Your task to perform on an android device: What is the news today? Image 0: 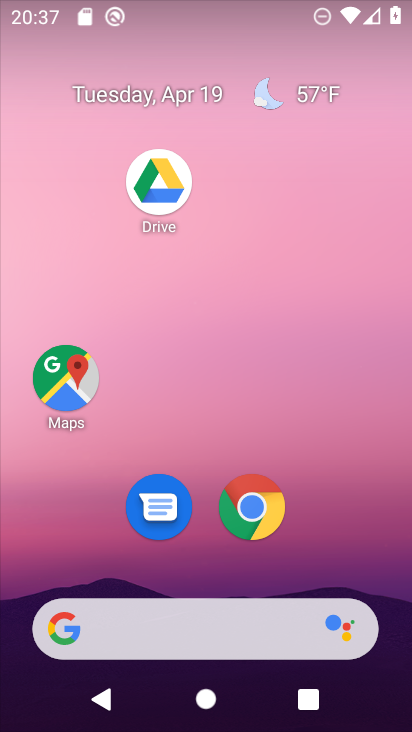
Step 0: click (63, 622)
Your task to perform on an android device: What is the news today? Image 1: 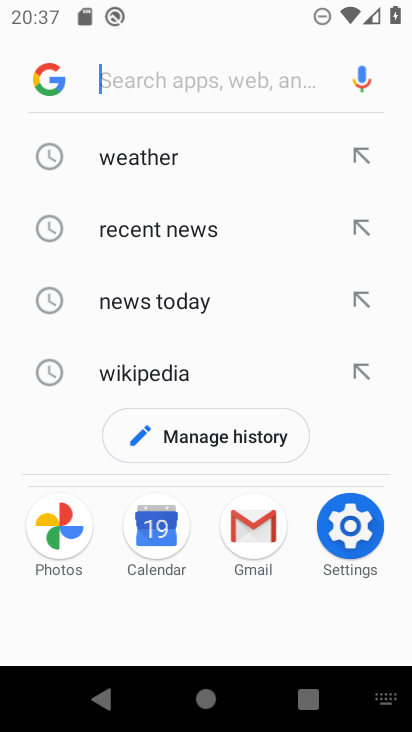
Step 1: click (47, 75)
Your task to perform on an android device: What is the news today? Image 2: 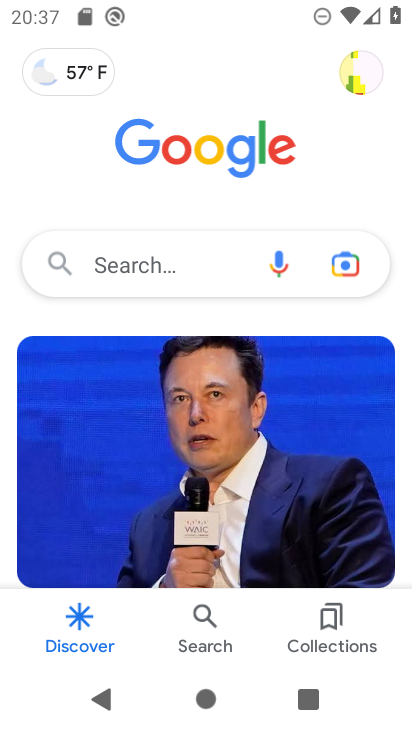
Step 2: task complete